Your task to perform on an android device: Open accessibility settings Image 0: 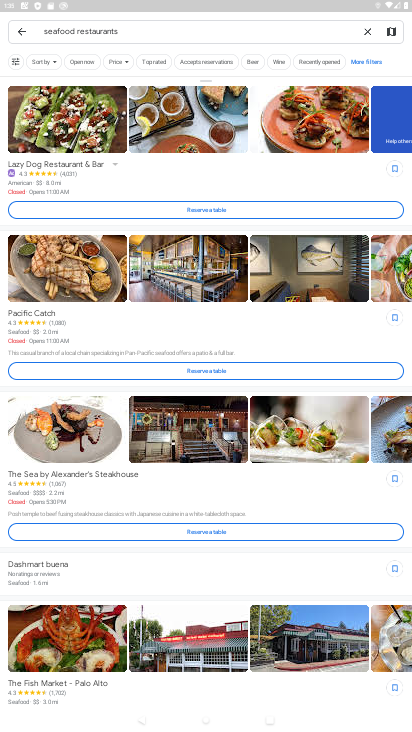
Step 0: press home button
Your task to perform on an android device: Open accessibility settings Image 1: 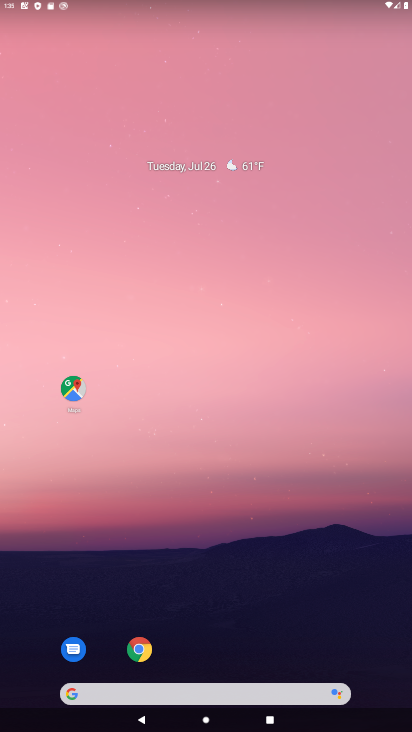
Step 1: drag from (212, 656) to (252, 51)
Your task to perform on an android device: Open accessibility settings Image 2: 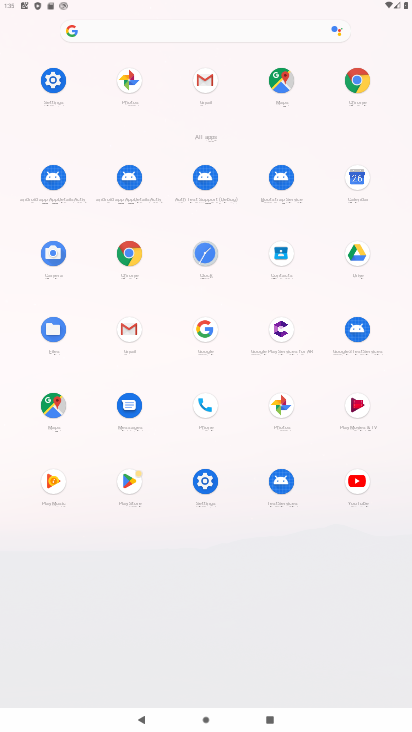
Step 2: click (203, 475)
Your task to perform on an android device: Open accessibility settings Image 3: 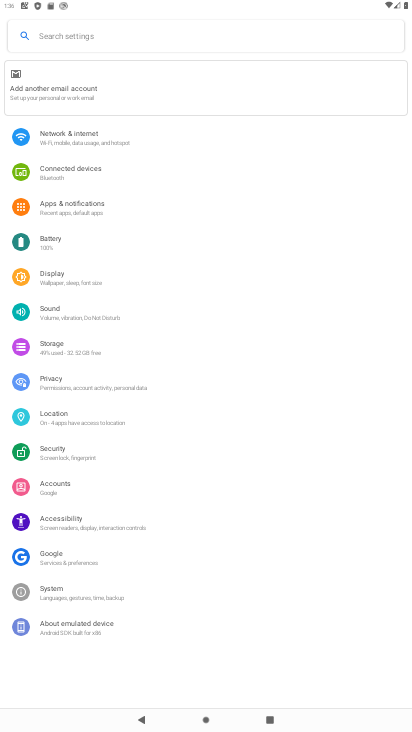
Step 3: click (60, 513)
Your task to perform on an android device: Open accessibility settings Image 4: 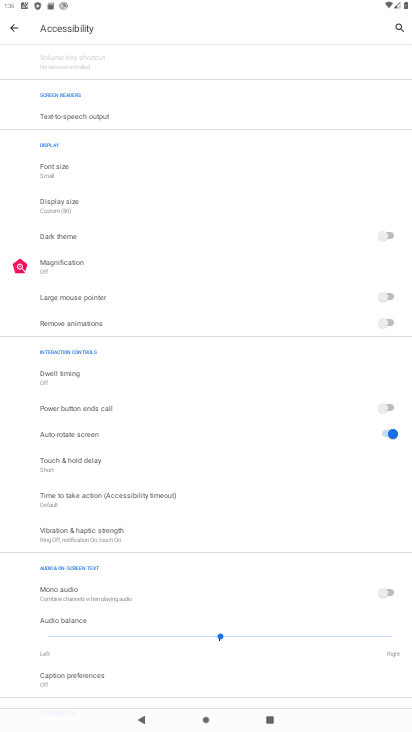
Step 4: task complete